Your task to perform on an android device: snooze an email in the gmail app Image 0: 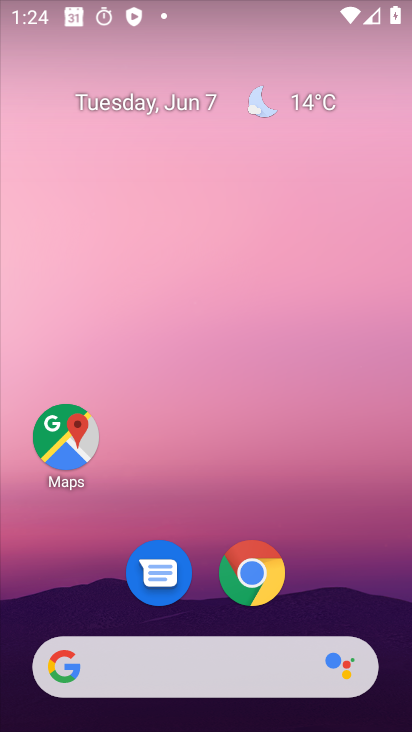
Step 0: press home button
Your task to perform on an android device: snooze an email in the gmail app Image 1: 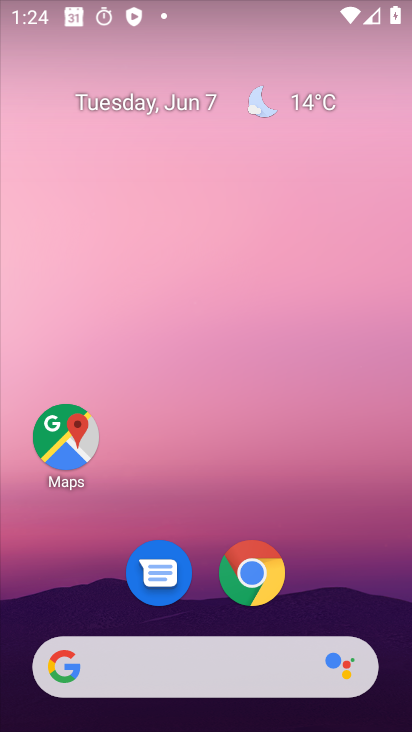
Step 1: drag from (204, 614) to (229, 88)
Your task to perform on an android device: snooze an email in the gmail app Image 2: 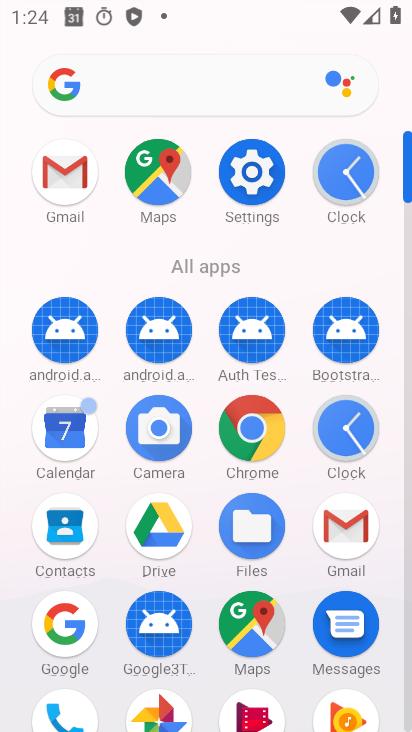
Step 2: click (347, 513)
Your task to perform on an android device: snooze an email in the gmail app Image 3: 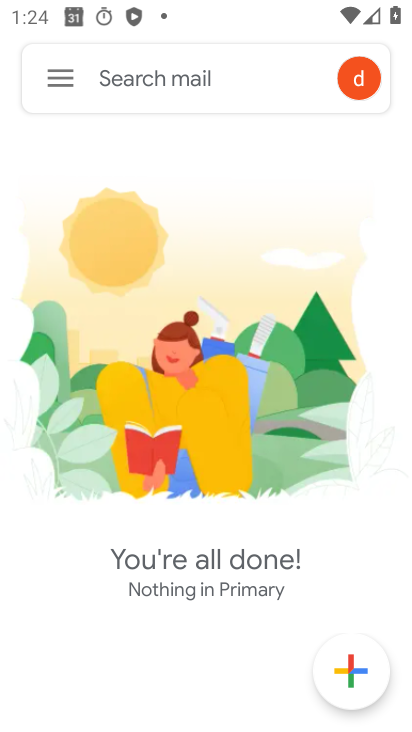
Step 3: task complete